Your task to perform on an android device: What is the recent news? Image 0: 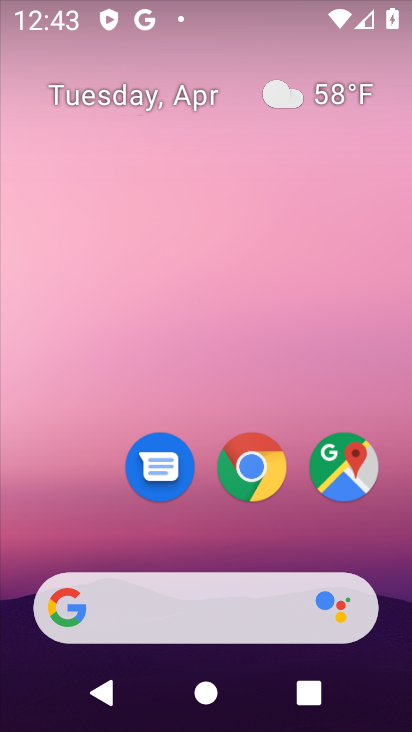
Step 0: click (219, 618)
Your task to perform on an android device: What is the recent news? Image 1: 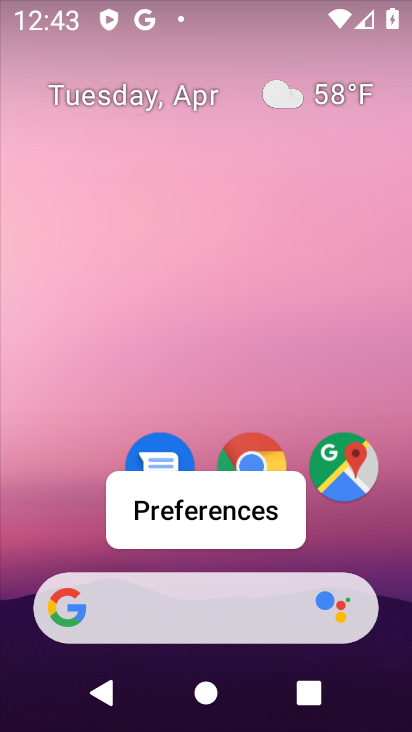
Step 1: click (219, 618)
Your task to perform on an android device: What is the recent news? Image 2: 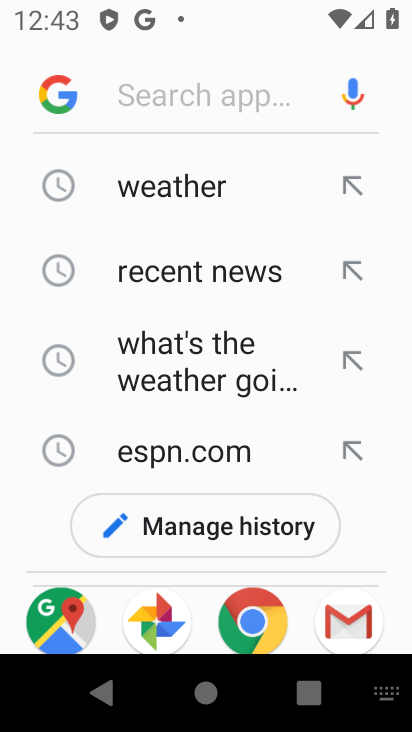
Step 2: click (54, 91)
Your task to perform on an android device: What is the recent news? Image 3: 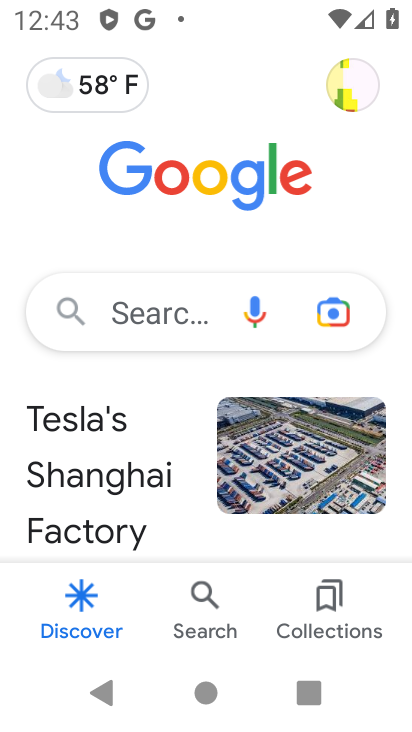
Step 3: task complete